Your task to perform on an android device: Open Maps and search for coffee Image 0: 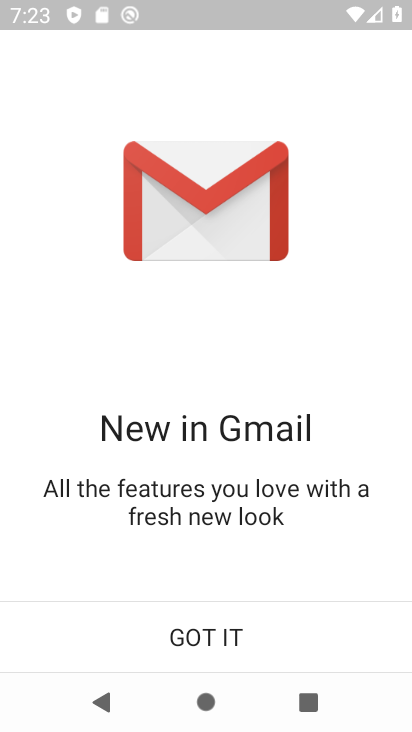
Step 0: press home button
Your task to perform on an android device: Open Maps and search for coffee Image 1: 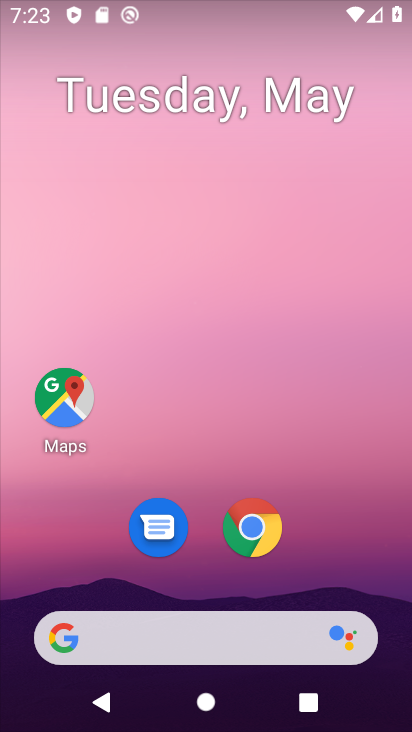
Step 1: click (63, 399)
Your task to perform on an android device: Open Maps and search for coffee Image 2: 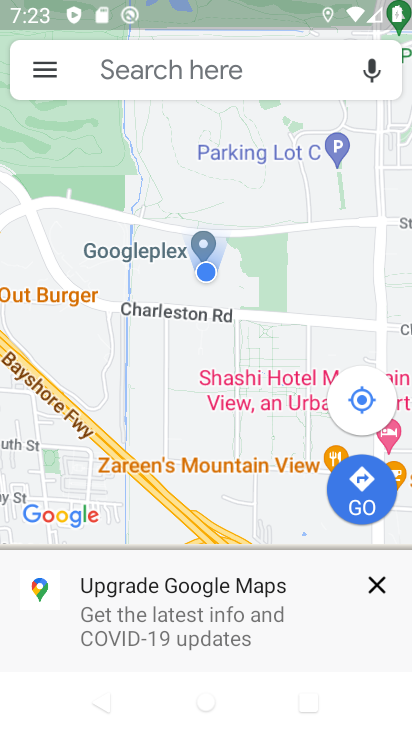
Step 2: click (175, 70)
Your task to perform on an android device: Open Maps and search for coffee Image 3: 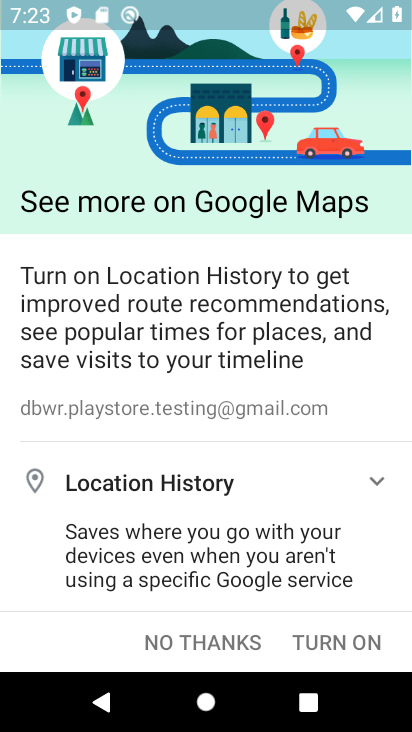
Step 3: click (238, 637)
Your task to perform on an android device: Open Maps and search for coffee Image 4: 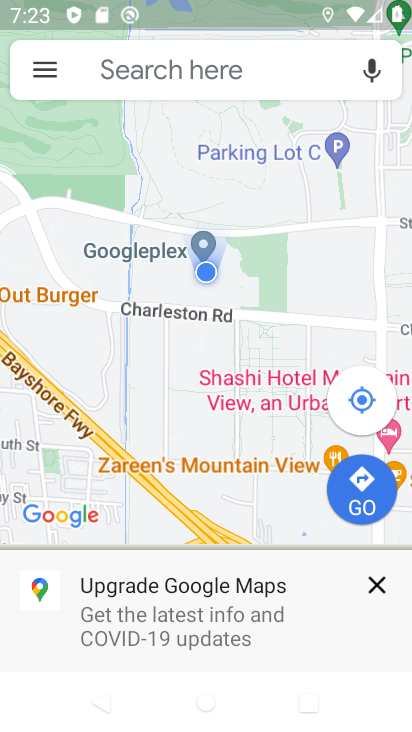
Step 4: click (179, 74)
Your task to perform on an android device: Open Maps and search for coffee Image 5: 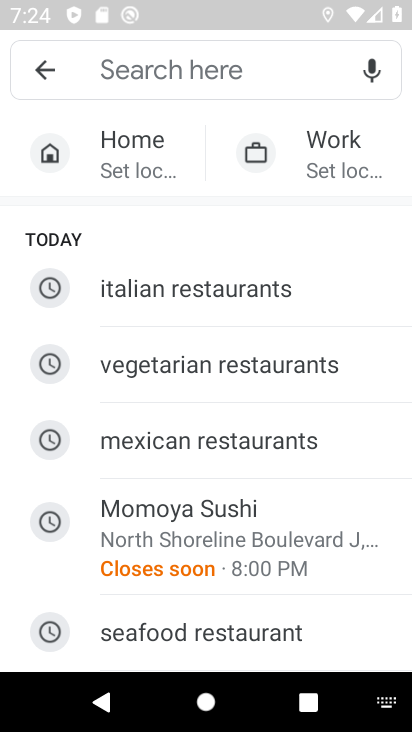
Step 5: type "coffee"
Your task to perform on an android device: Open Maps and search for coffee Image 6: 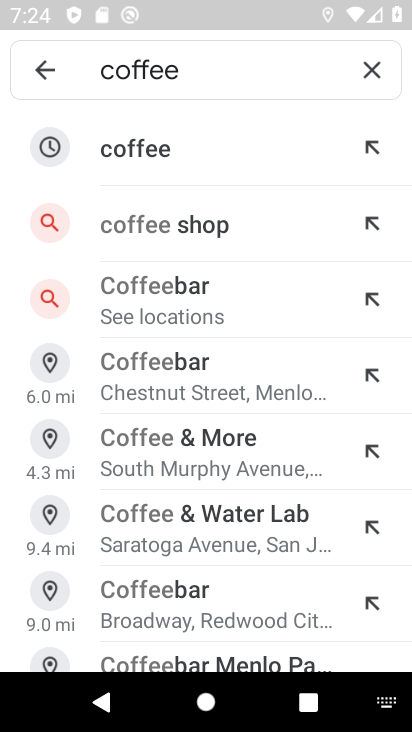
Step 6: click (145, 147)
Your task to perform on an android device: Open Maps and search for coffee Image 7: 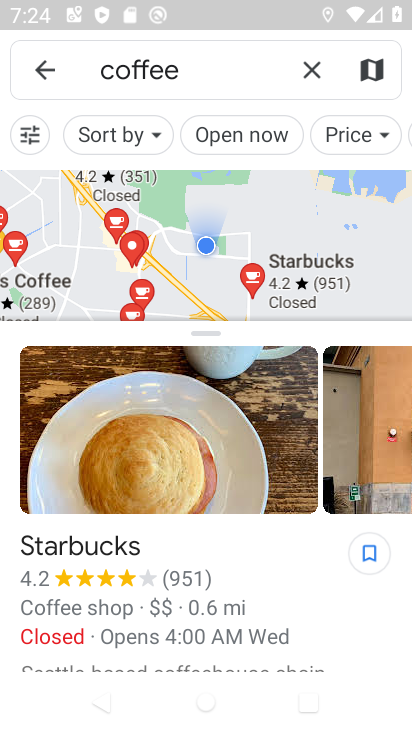
Step 7: task complete